Your task to perform on an android device: Go to internet settings Image 0: 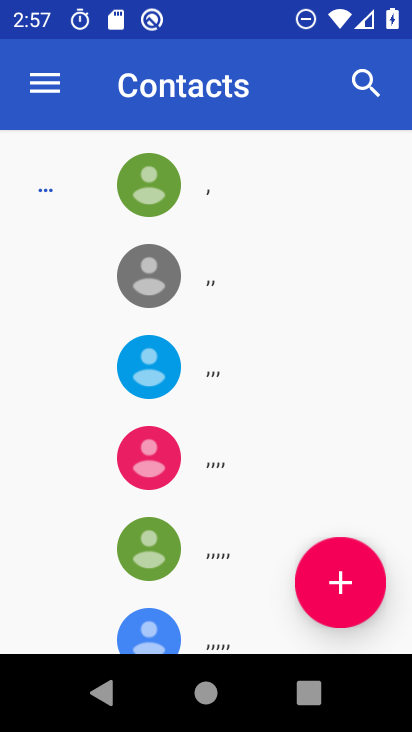
Step 0: press home button
Your task to perform on an android device: Go to internet settings Image 1: 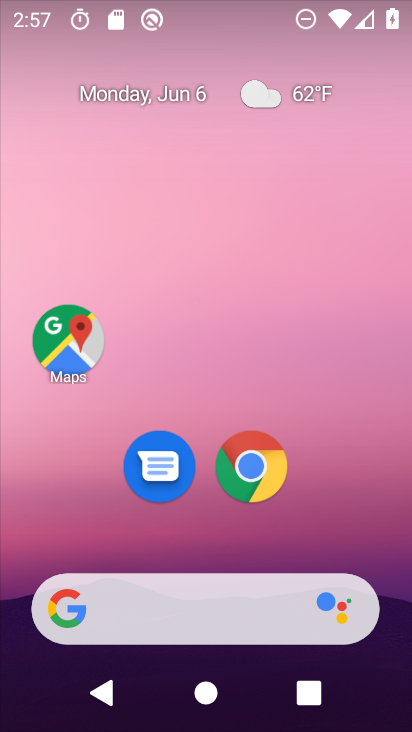
Step 1: drag from (202, 538) to (219, 16)
Your task to perform on an android device: Go to internet settings Image 2: 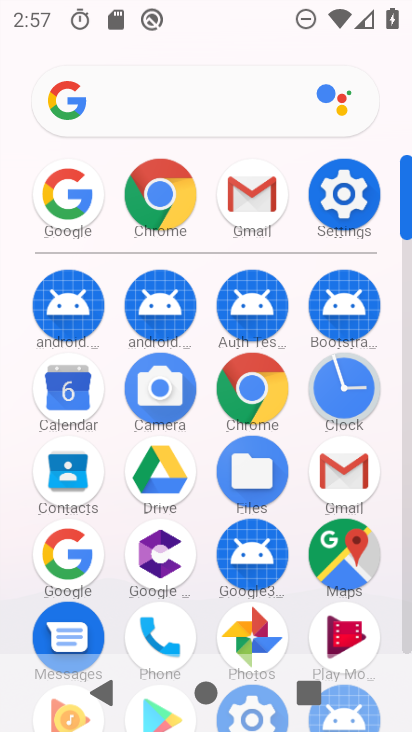
Step 2: click (348, 202)
Your task to perform on an android device: Go to internet settings Image 3: 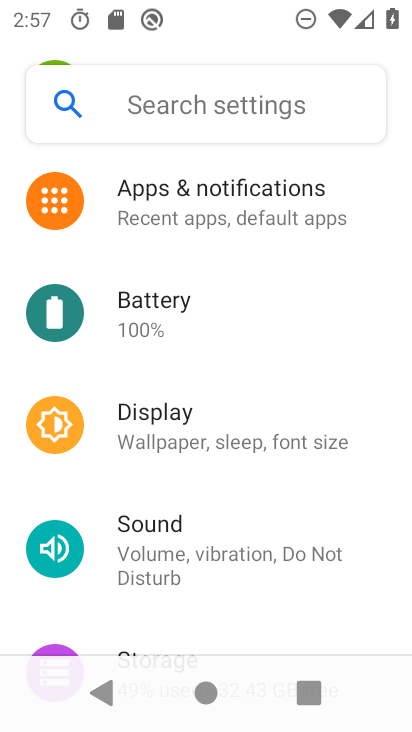
Step 3: drag from (202, 243) to (203, 459)
Your task to perform on an android device: Go to internet settings Image 4: 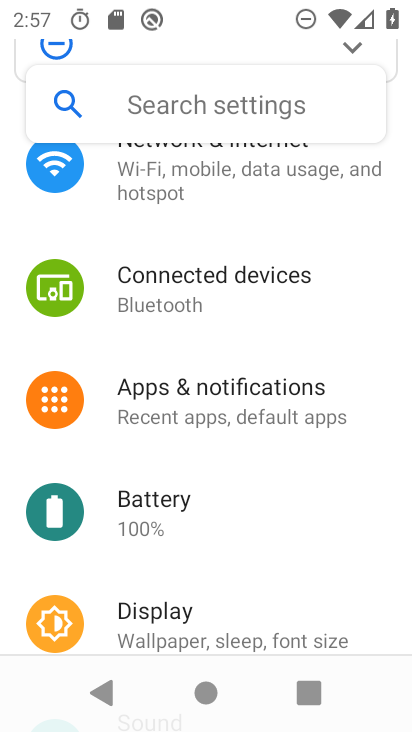
Step 4: drag from (235, 244) to (234, 397)
Your task to perform on an android device: Go to internet settings Image 5: 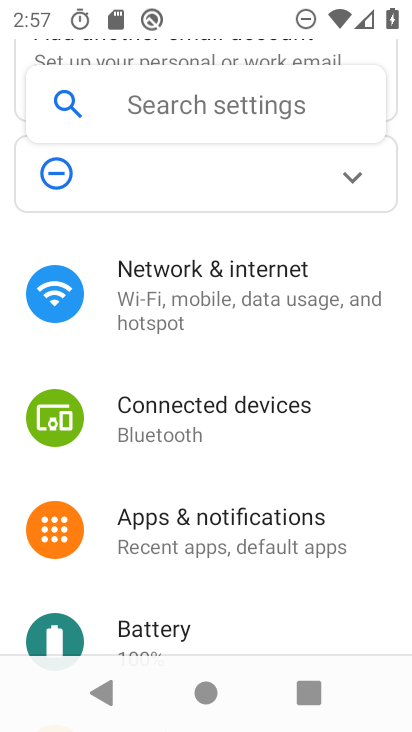
Step 5: click (189, 305)
Your task to perform on an android device: Go to internet settings Image 6: 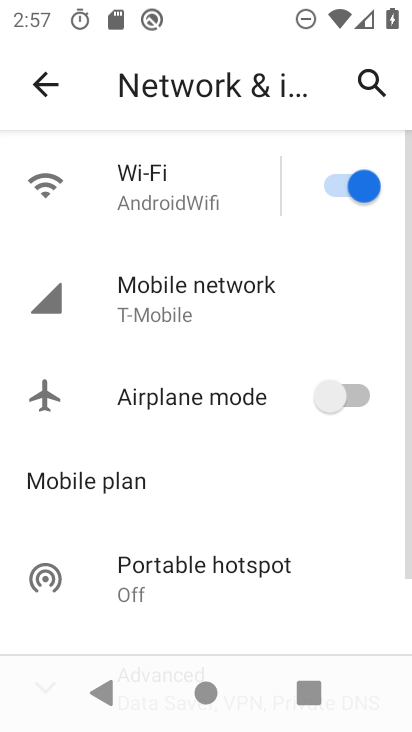
Step 6: task complete